Your task to perform on an android device: open sync settings in chrome Image 0: 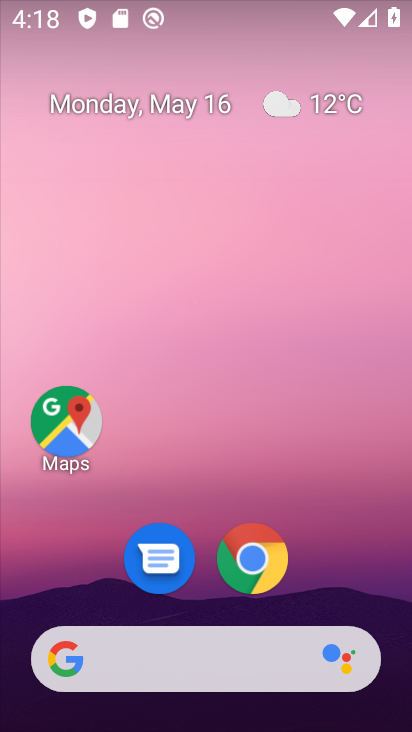
Step 0: click (251, 583)
Your task to perform on an android device: open sync settings in chrome Image 1: 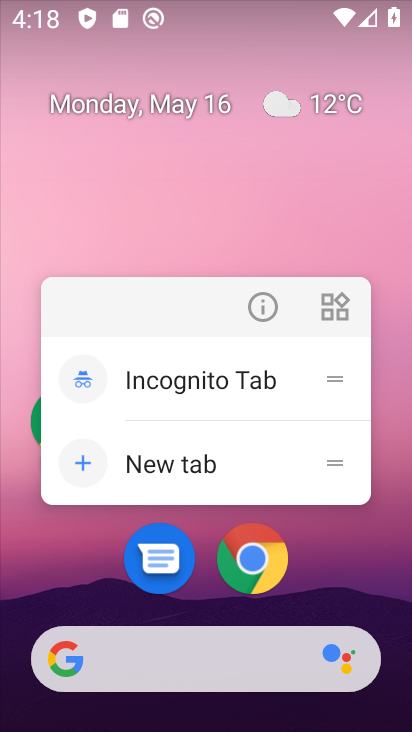
Step 1: click (251, 584)
Your task to perform on an android device: open sync settings in chrome Image 2: 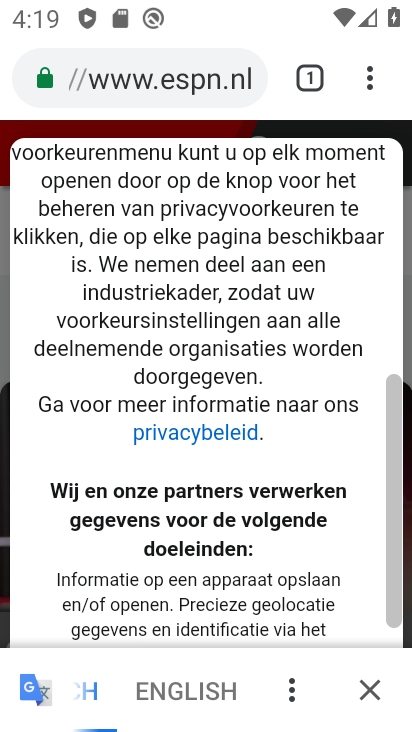
Step 2: drag from (369, 84) to (189, 614)
Your task to perform on an android device: open sync settings in chrome Image 3: 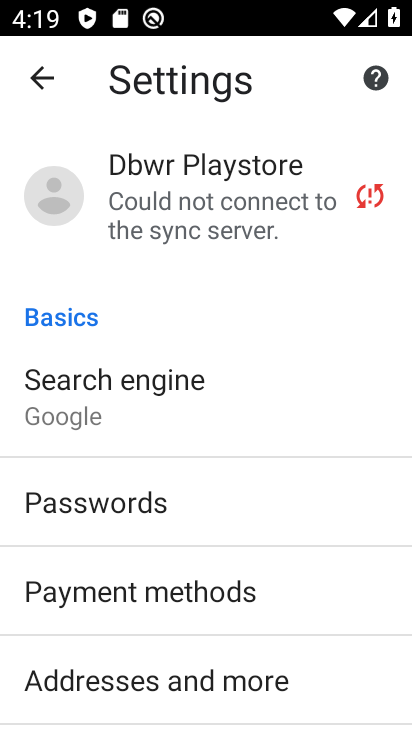
Step 3: drag from (213, 653) to (227, 232)
Your task to perform on an android device: open sync settings in chrome Image 4: 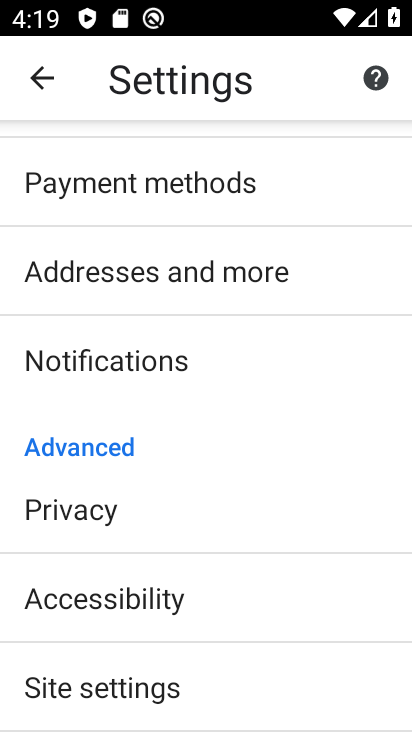
Step 4: drag from (204, 701) to (235, 253)
Your task to perform on an android device: open sync settings in chrome Image 5: 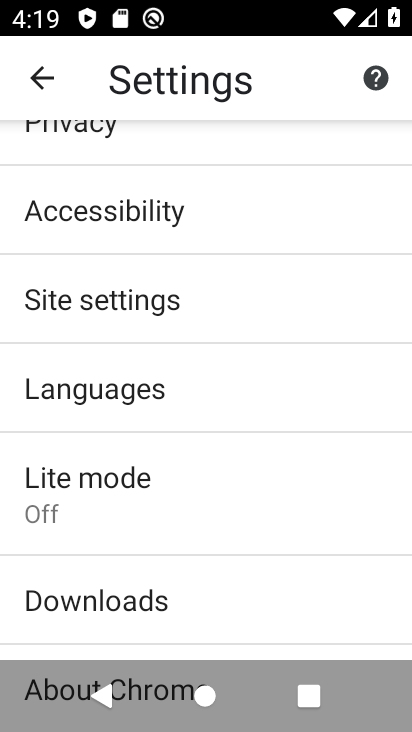
Step 5: drag from (228, 630) to (285, 283)
Your task to perform on an android device: open sync settings in chrome Image 6: 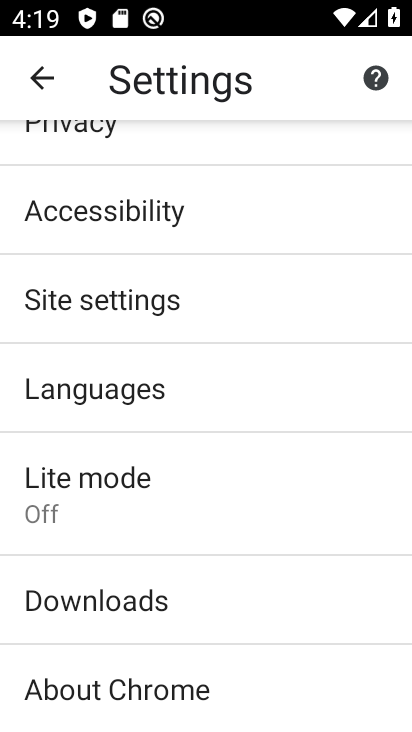
Step 6: drag from (254, 627) to (286, 557)
Your task to perform on an android device: open sync settings in chrome Image 7: 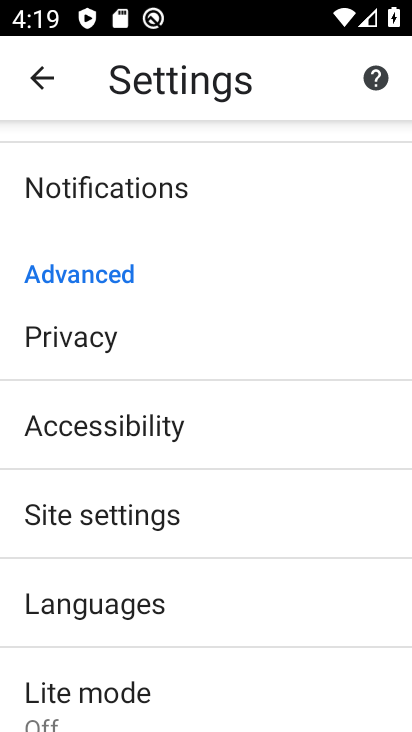
Step 7: click (191, 519)
Your task to perform on an android device: open sync settings in chrome Image 8: 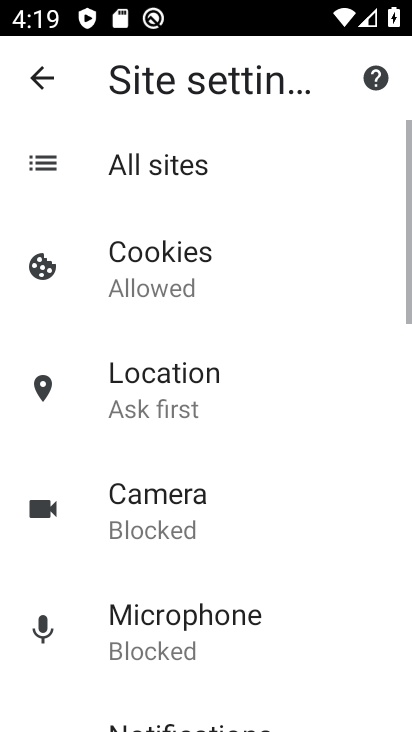
Step 8: drag from (256, 655) to (304, 257)
Your task to perform on an android device: open sync settings in chrome Image 9: 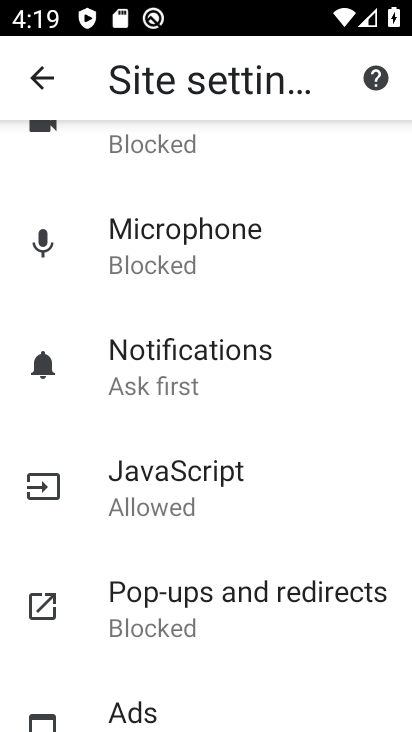
Step 9: drag from (257, 674) to (276, 303)
Your task to perform on an android device: open sync settings in chrome Image 10: 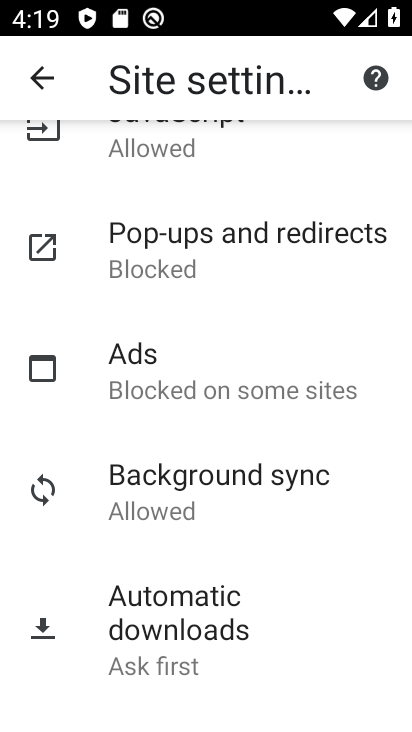
Step 10: click (247, 489)
Your task to perform on an android device: open sync settings in chrome Image 11: 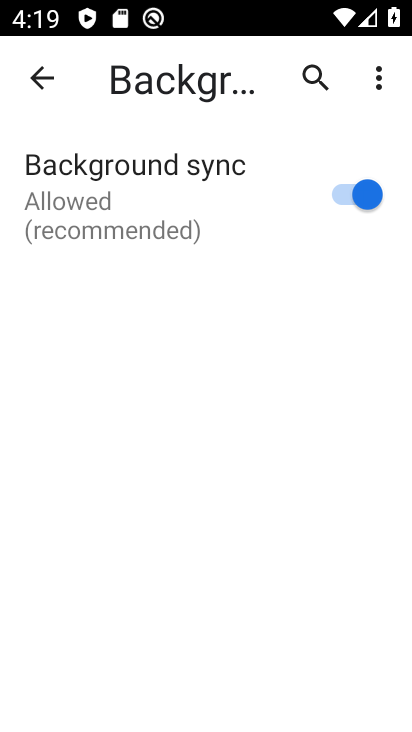
Step 11: task complete